Your task to perform on an android device: Go to display settings Image 0: 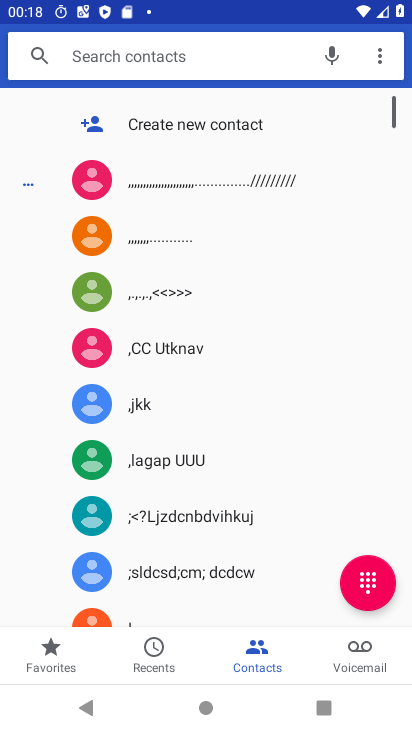
Step 0: press home button
Your task to perform on an android device: Go to display settings Image 1: 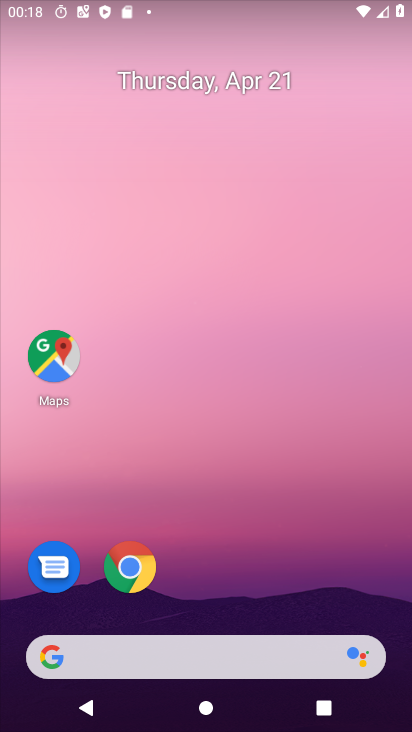
Step 1: drag from (269, 632) to (254, 182)
Your task to perform on an android device: Go to display settings Image 2: 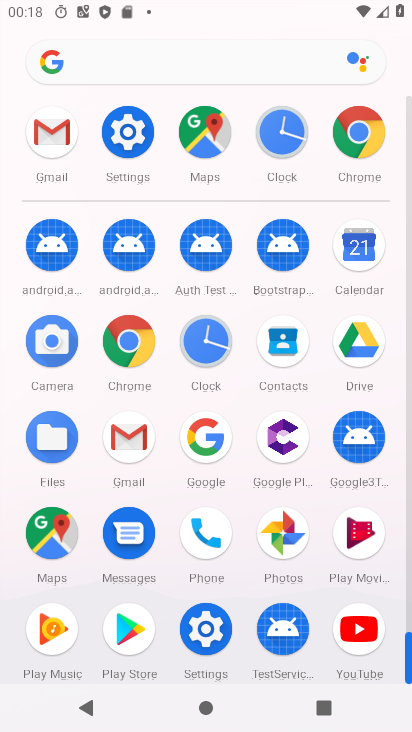
Step 2: click (127, 133)
Your task to perform on an android device: Go to display settings Image 3: 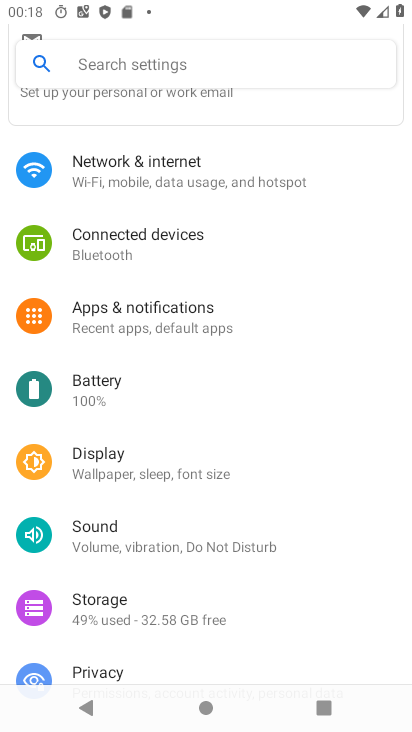
Step 3: drag from (226, 556) to (257, 245)
Your task to perform on an android device: Go to display settings Image 4: 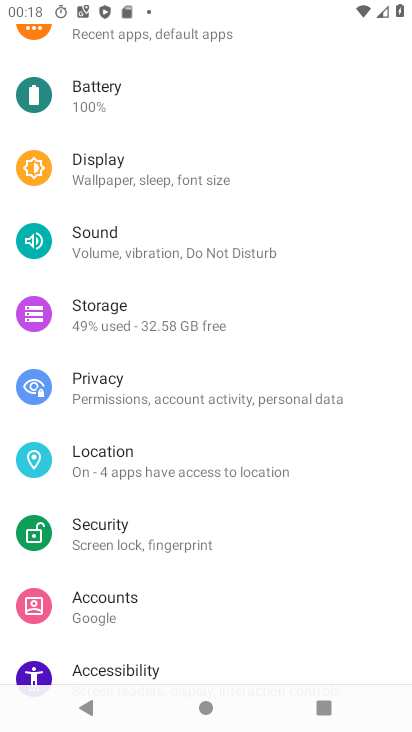
Step 4: drag from (171, 584) to (186, 510)
Your task to perform on an android device: Go to display settings Image 5: 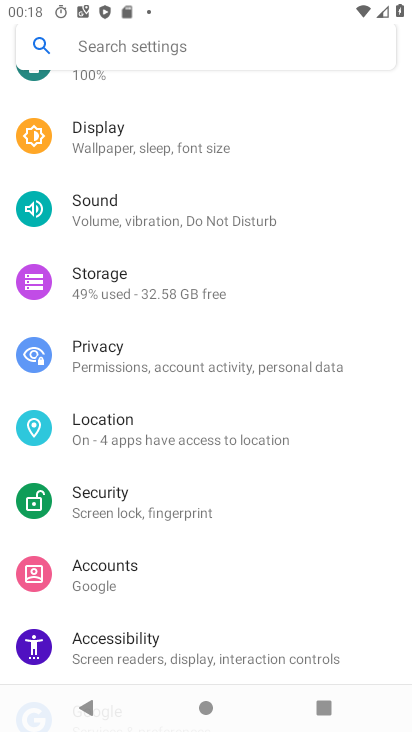
Step 5: click (167, 140)
Your task to perform on an android device: Go to display settings Image 6: 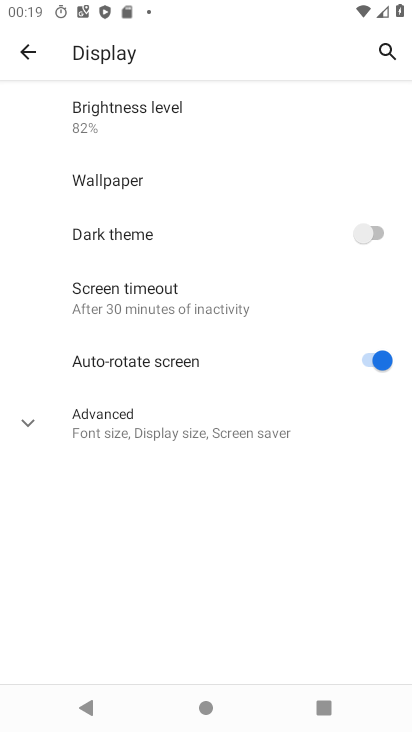
Step 6: task complete